Your task to perform on an android device: Go to accessibility settings Image 0: 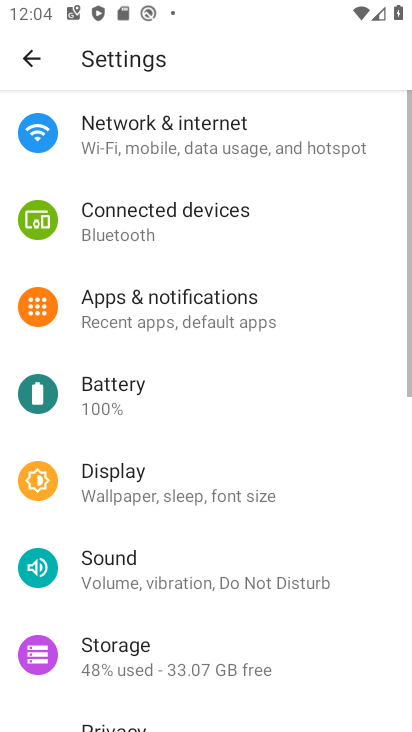
Step 0: press home button
Your task to perform on an android device: Go to accessibility settings Image 1: 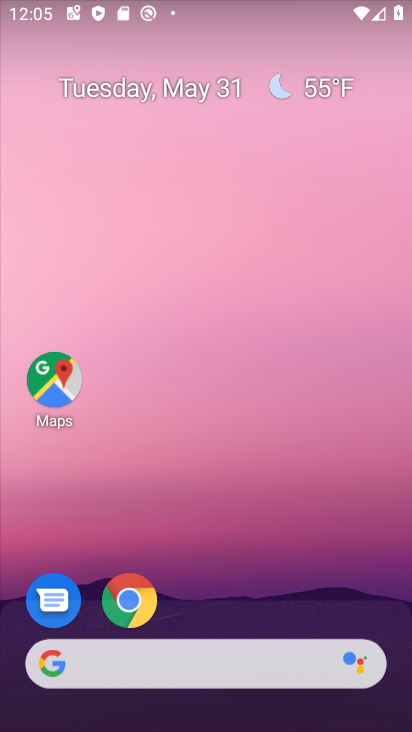
Step 1: drag from (329, 556) to (267, 144)
Your task to perform on an android device: Go to accessibility settings Image 2: 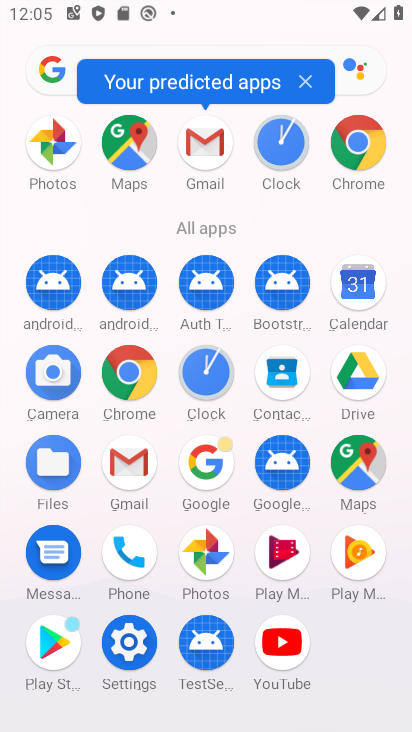
Step 2: click (126, 640)
Your task to perform on an android device: Go to accessibility settings Image 3: 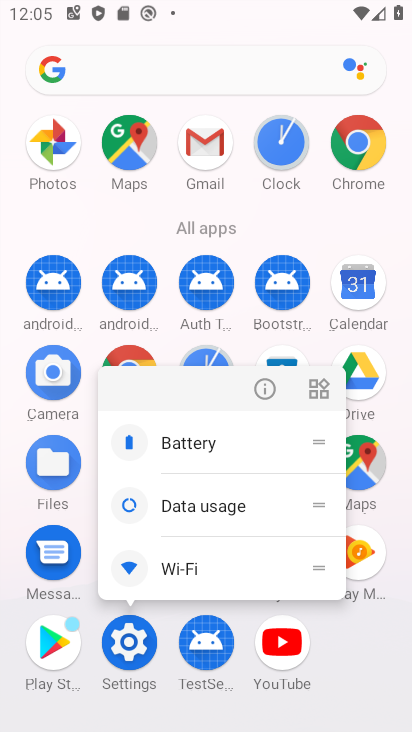
Step 3: click (122, 638)
Your task to perform on an android device: Go to accessibility settings Image 4: 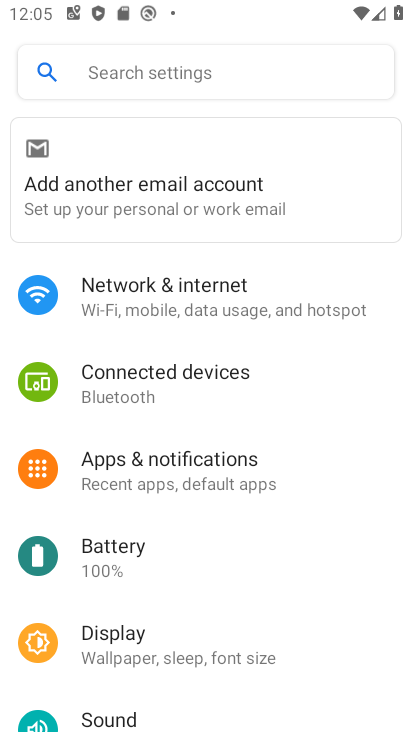
Step 4: drag from (360, 691) to (330, 43)
Your task to perform on an android device: Go to accessibility settings Image 5: 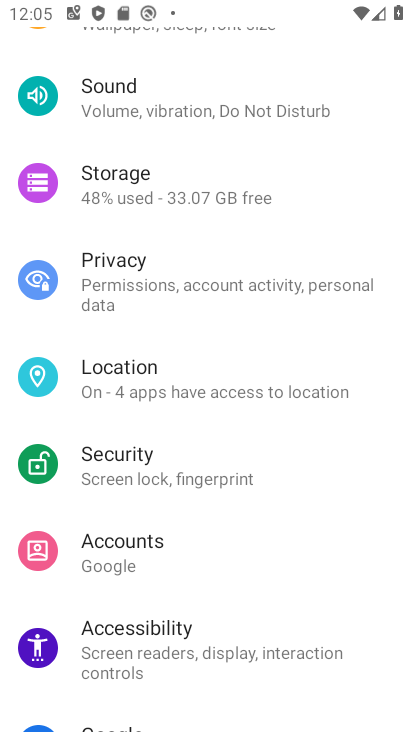
Step 5: click (189, 650)
Your task to perform on an android device: Go to accessibility settings Image 6: 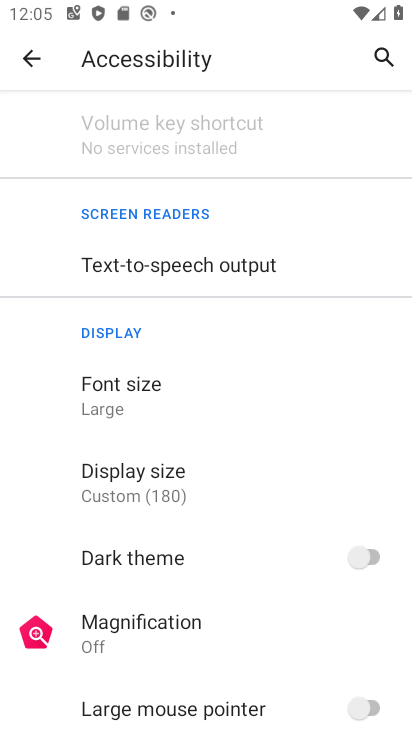
Step 6: task complete